Your task to perform on an android device: What is the news today? Image 0: 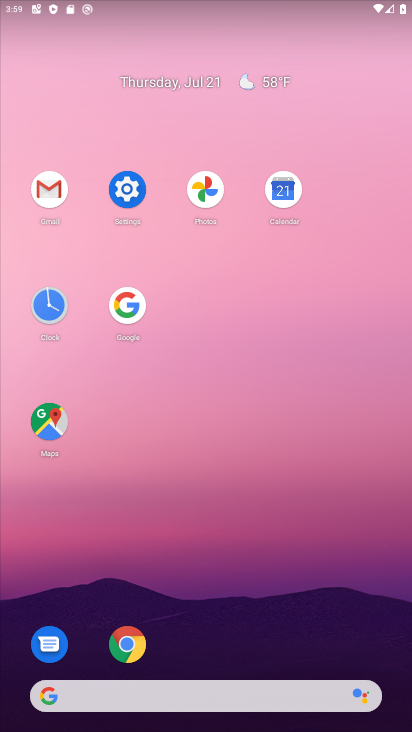
Step 0: click (122, 294)
Your task to perform on an android device: What is the news today? Image 1: 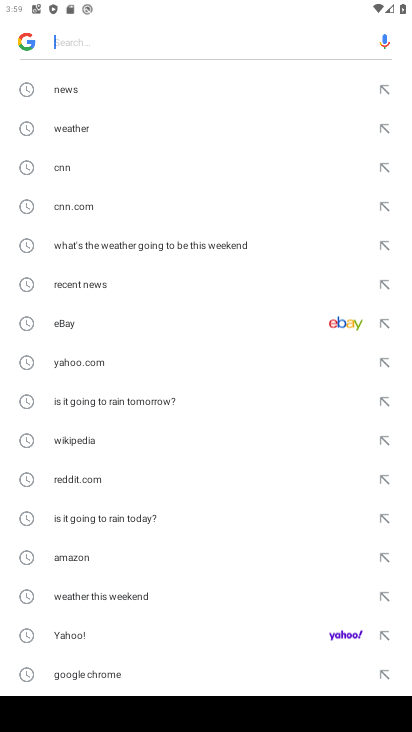
Step 1: click (95, 73)
Your task to perform on an android device: What is the news today? Image 2: 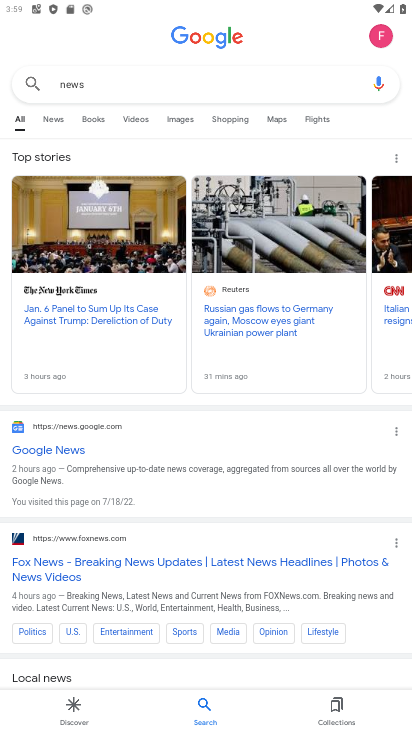
Step 2: task complete